Your task to perform on an android device: show emergency info Image 0: 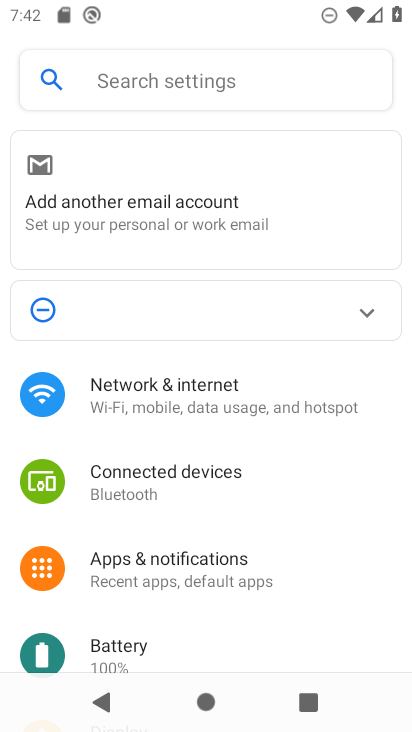
Step 0: press home button
Your task to perform on an android device: show emergency info Image 1: 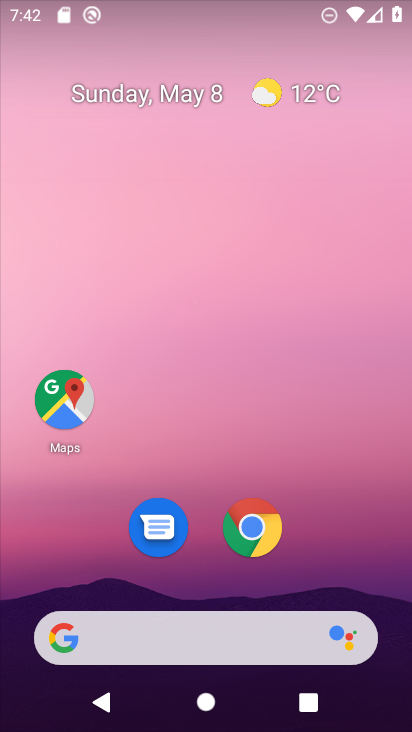
Step 1: drag from (336, 455) to (326, 6)
Your task to perform on an android device: show emergency info Image 2: 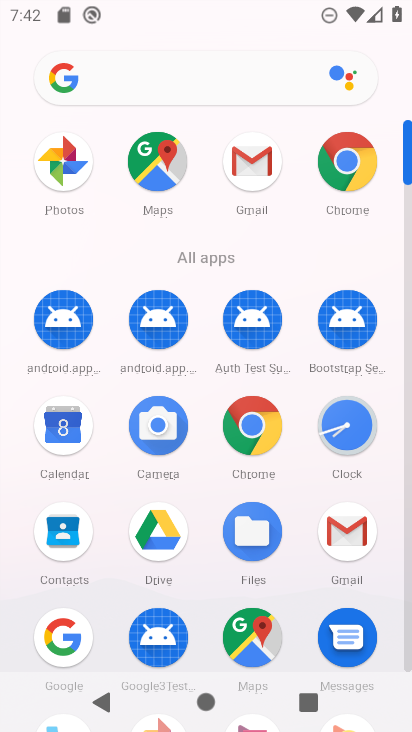
Step 2: drag from (298, 624) to (360, 59)
Your task to perform on an android device: show emergency info Image 3: 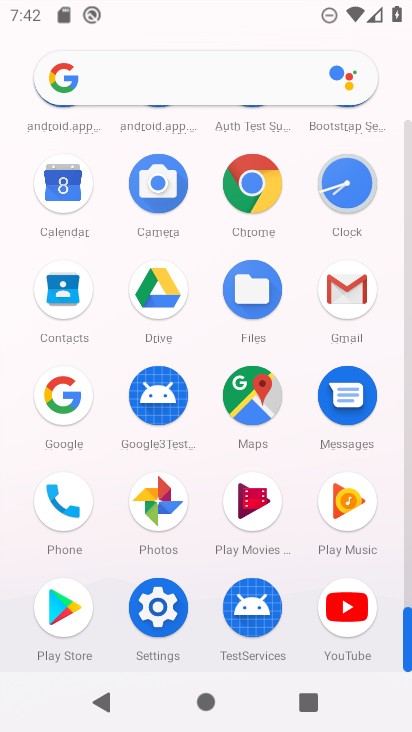
Step 3: click (159, 613)
Your task to perform on an android device: show emergency info Image 4: 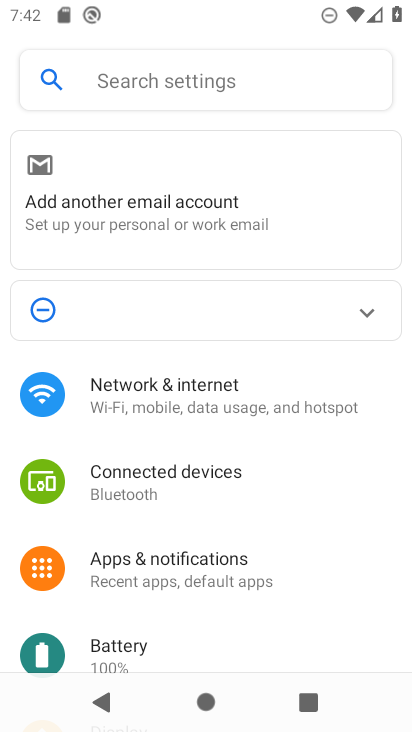
Step 4: drag from (159, 609) to (285, 89)
Your task to perform on an android device: show emergency info Image 5: 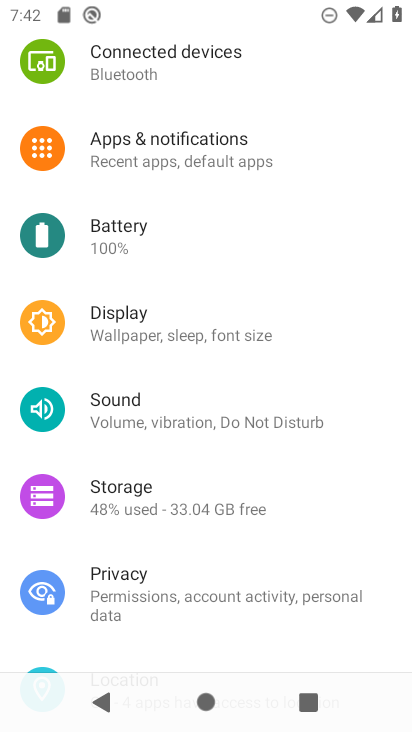
Step 5: drag from (217, 619) to (392, 0)
Your task to perform on an android device: show emergency info Image 6: 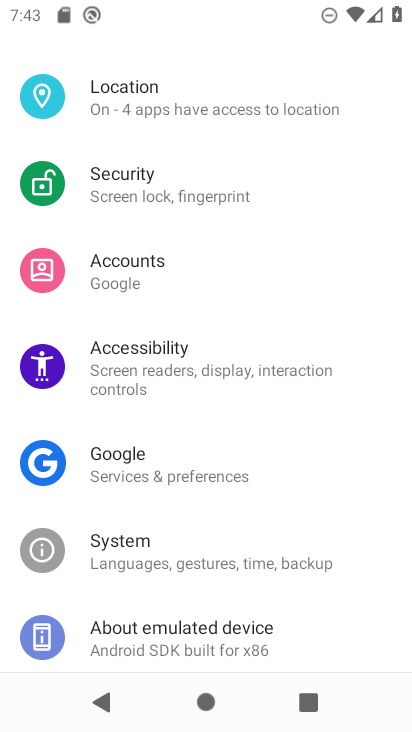
Step 6: click (154, 637)
Your task to perform on an android device: show emergency info Image 7: 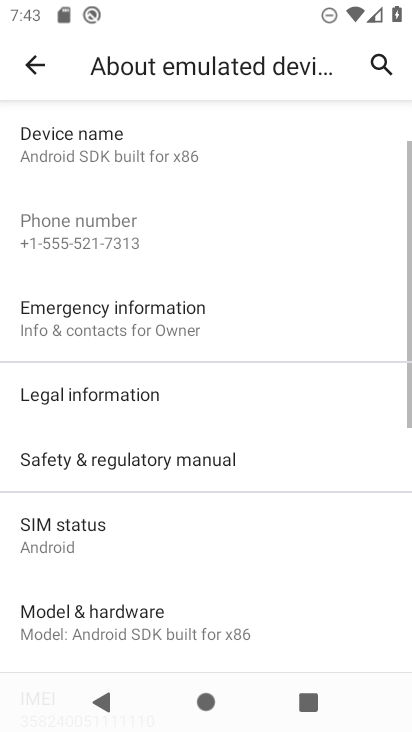
Step 7: click (192, 315)
Your task to perform on an android device: show emergency info Image 8: 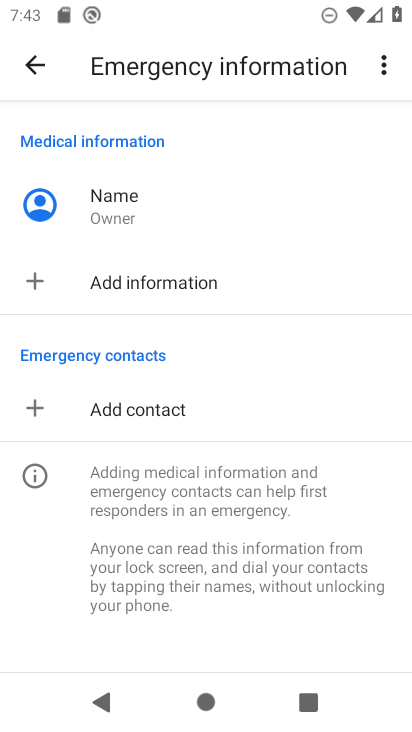
Step 8: task complete